Your task to perform on an android device: Check the news Image 0: 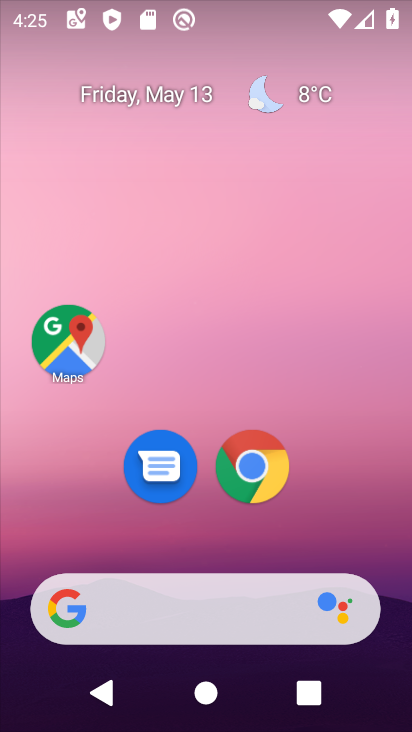
Step 0: drag from (8, 161) to (388, 317)
Your task to perform on an android device: Check the news Image 1: 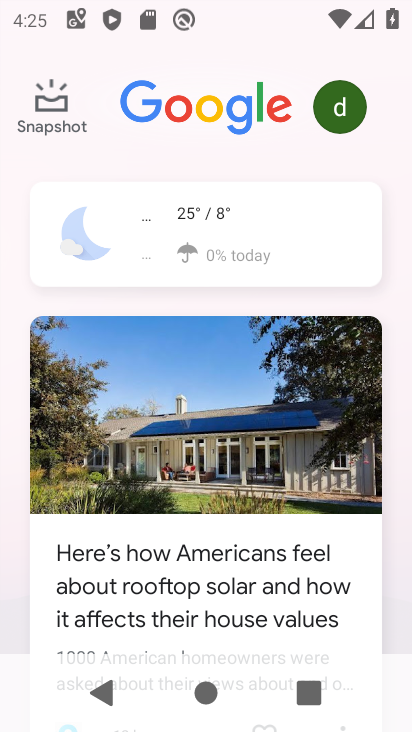
Step 1: task complete